Your task to perform on an android device: What's the weather going to be this weekend? Image 0: 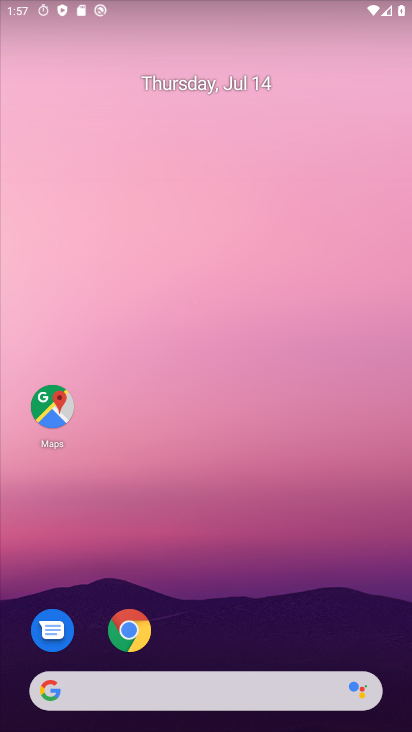
Step 0: drag from (212, 446) to (285, 55)
Your task to perform on an android device: What's the weather going to be this weekend? Image 1: 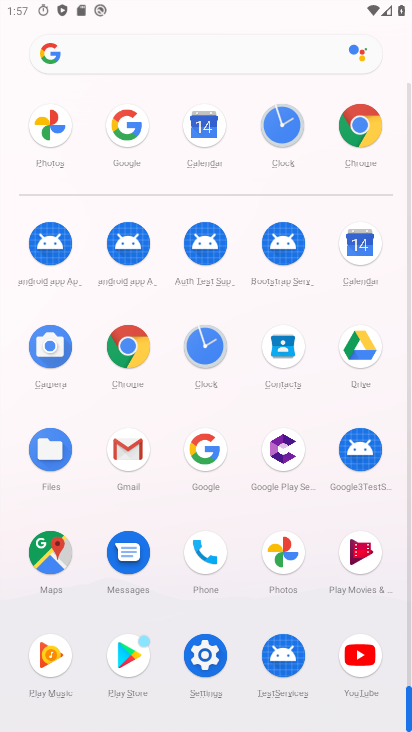
Step 1: drag from (197, 620) to (246, 3)
Your task to perform on an android device: What's the weather going to be this weekend? Image 2: 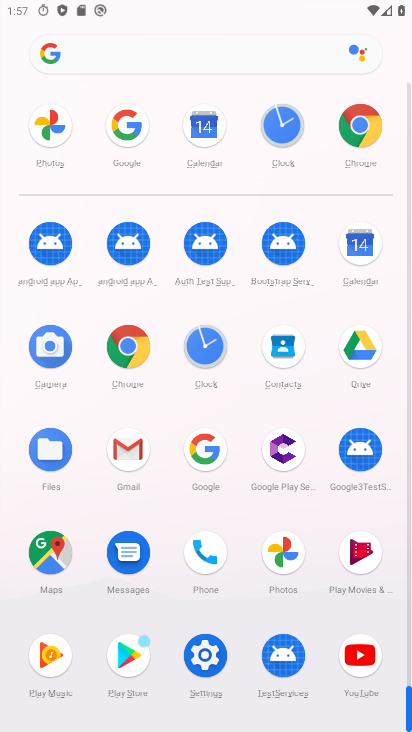
Step 2: click (362, 117)
Your task to perform on an android device: What's the weather going to be this weekend? Image 3: 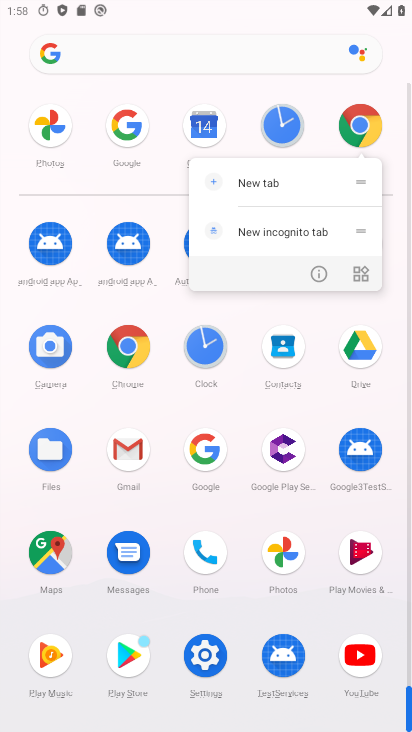
Step 3: click (127, 55)
Your task to perform on an android device: What's the weather going to be this weekend? Image 4: 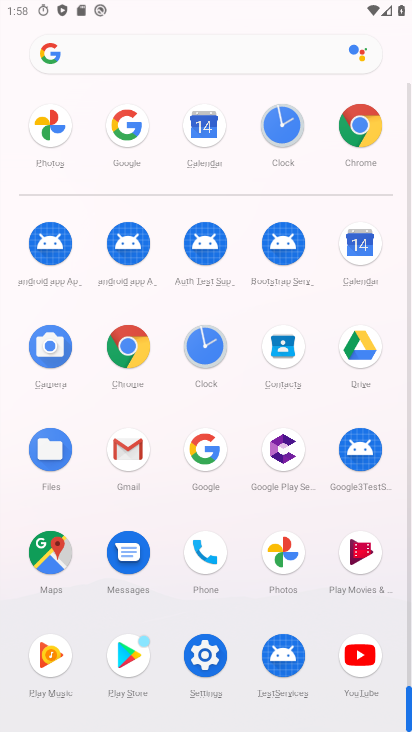
Step 4: click (99, 48)
Your task to perform on an android device: What's the weather going to be this weekend? Image 5: 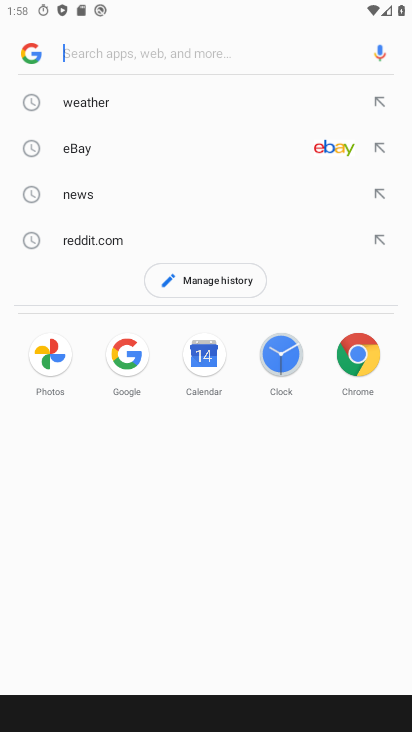
Step 5: click (103, 47)
Your task to perform on an android device: What's the weather going to be this weekend? Image 6: 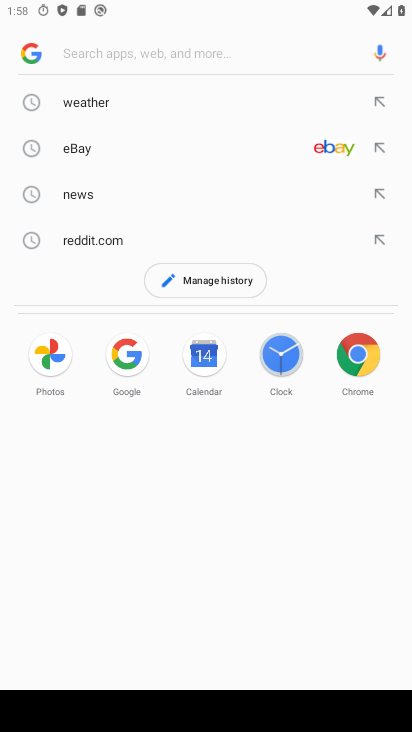
Step 6: type "What's the weather going to be this weekend?"
Your task to perform on an android device: What's the weather going to be this weekend? Image 7: 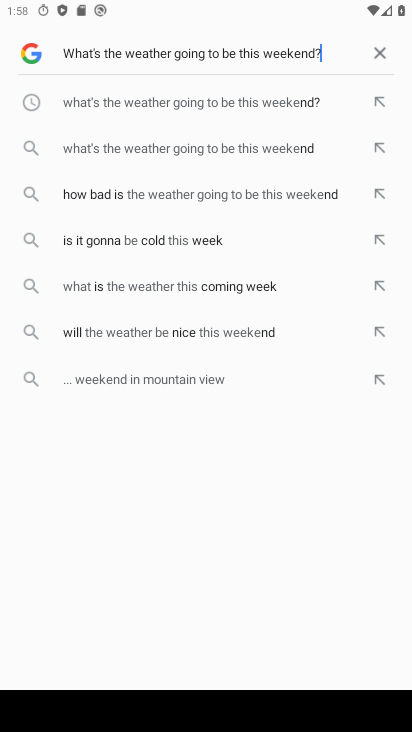
Step 7: type ""
Your task to perform on an android device: What's the weather going to be this weekend? Image 8: 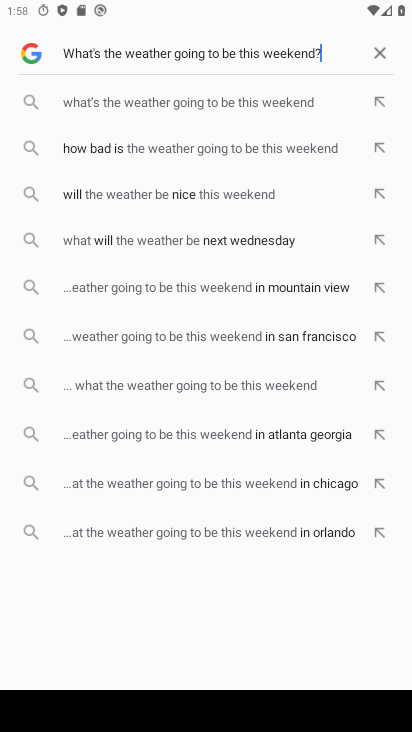
Step 8: click (142, 107)
Your task to perform on an android device: What's the weather going to be this weekend? Image 9: 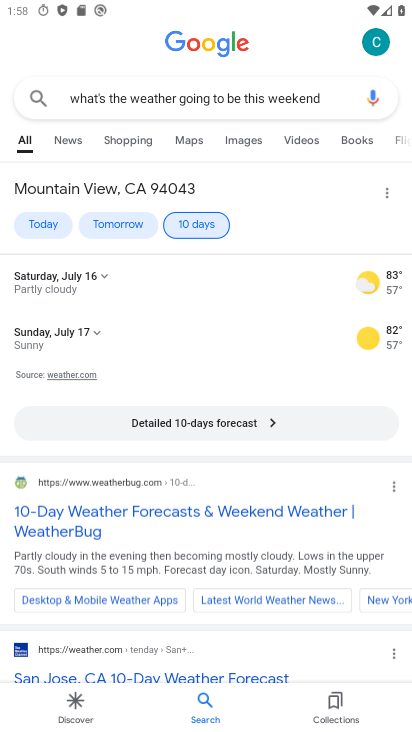
Step 9: task complete